Your task to perform on an android device: Open sound settings Image 0: 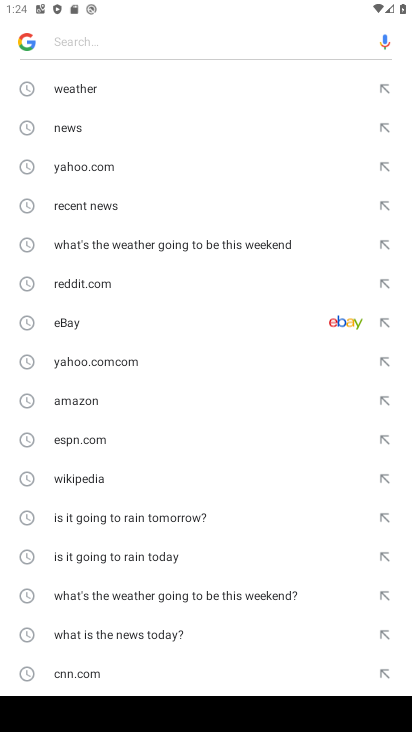
Step 0: press home button
Your task to perform on an android device: Open sound settings Image 1: 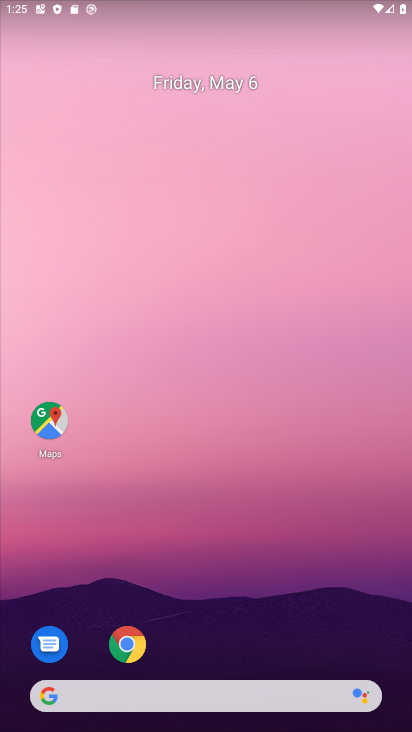
Step 1: drag from (249, 727) to (359, 187)
Your task to perform on an android device: Open sound settings Image 2: 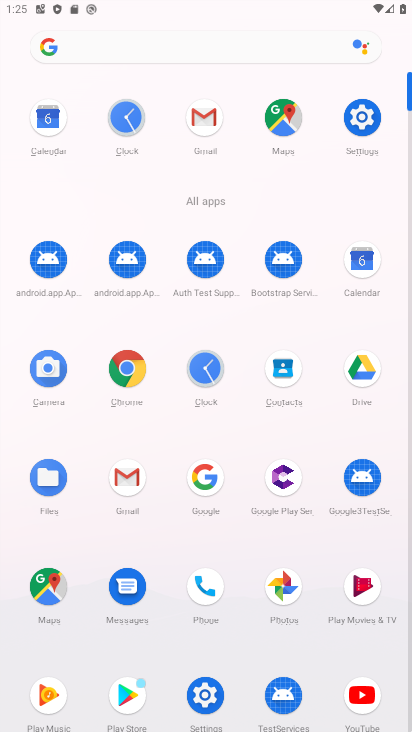
Step 2: click (381, 114)
Your task to perform on an android device: Open sound settings Image 3: 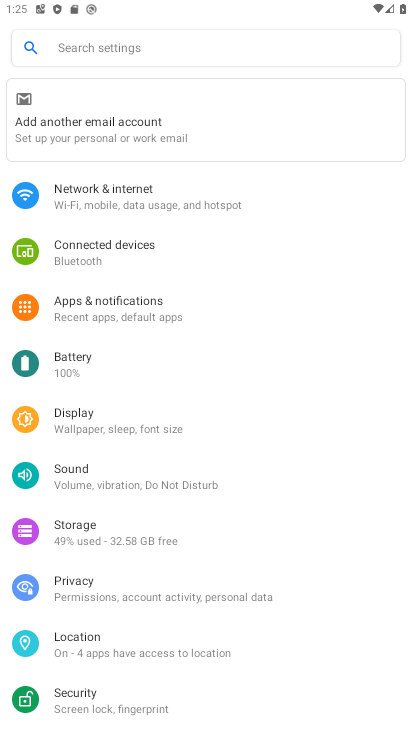
Step 3: click (120, 485)
Your task to perform on an android device: Open sound settings Image 4: 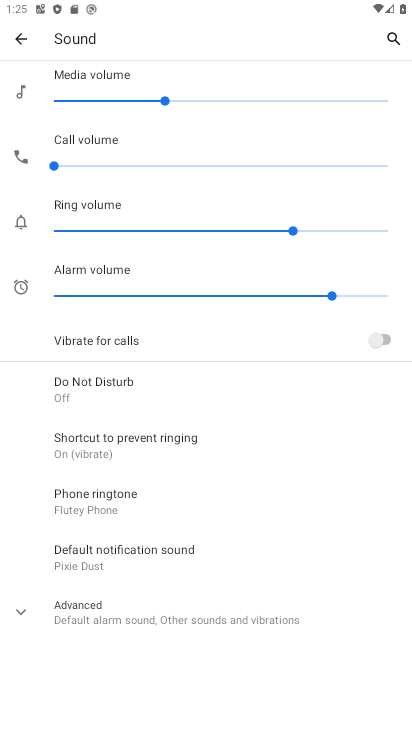
Step 4: task complete